Your task to perform on an android device: Search for the new Air Jordan 13 on Nike.com Image 0: 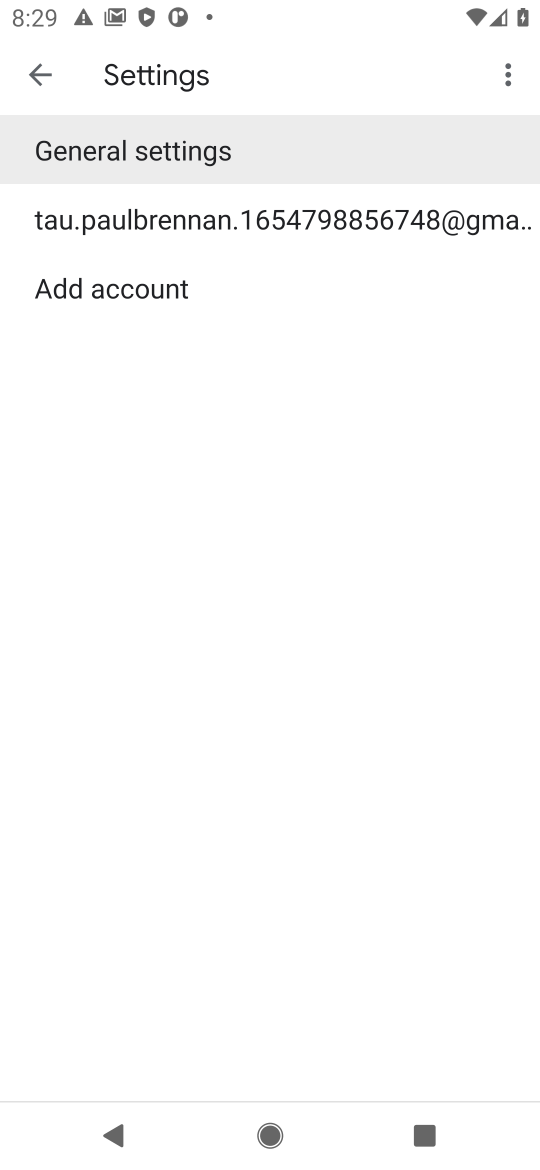
Step 0: press home button
Your task to perform on an android device: Search for the new Air Jordan 13 on Nike.com Image 1: 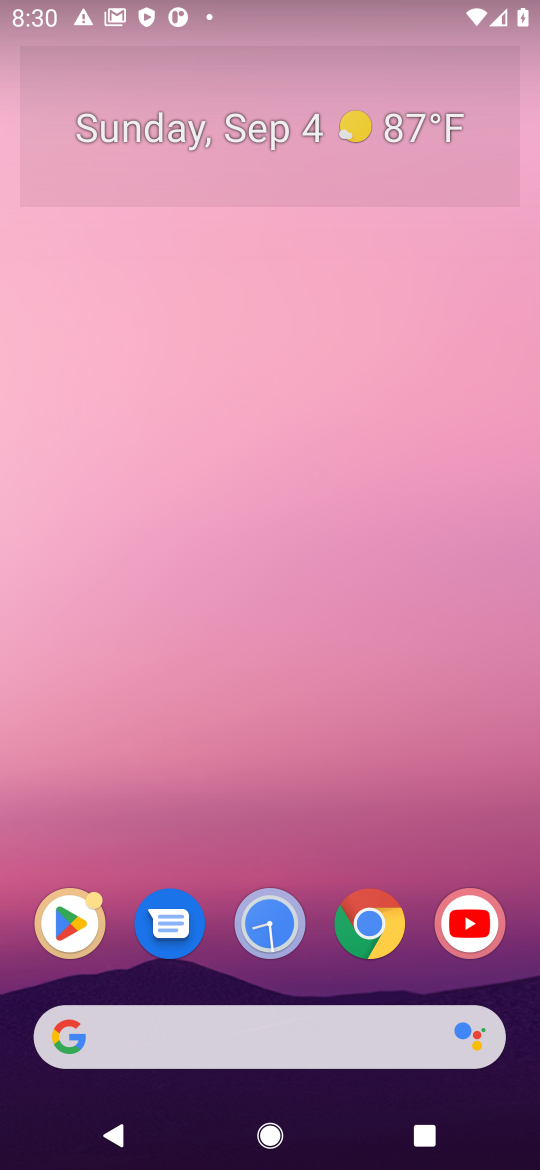
Step 1: click (402, 1046)
Your task to perform on an android device: Search for the new Air Jordan 13 on Nike.com Image 2: 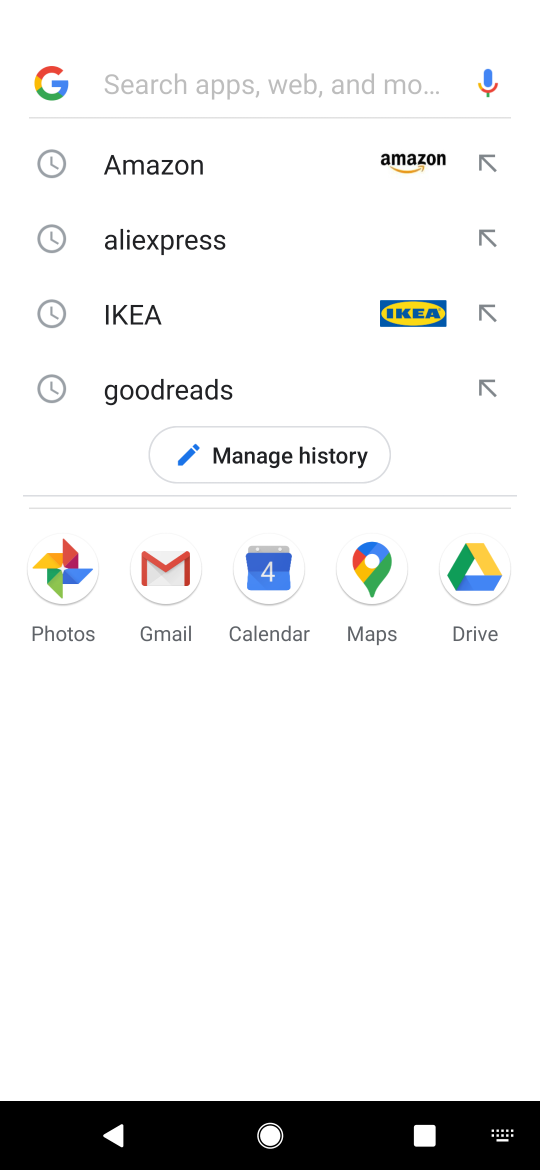
Step 2: press enter
Your task to perform on an android device: Search for the new Air Jordan 13 on Nike.com Image 3: 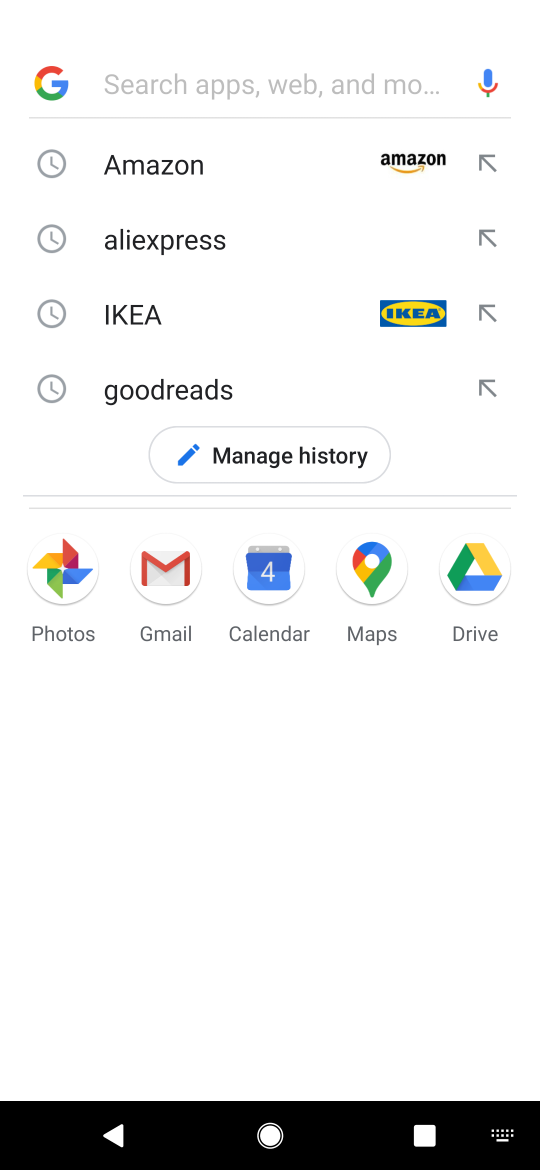
Step 3: type "nike.com"
Your task to perform on an android device: Search for the new Air Jordan 13 on Nike.com Image 4: 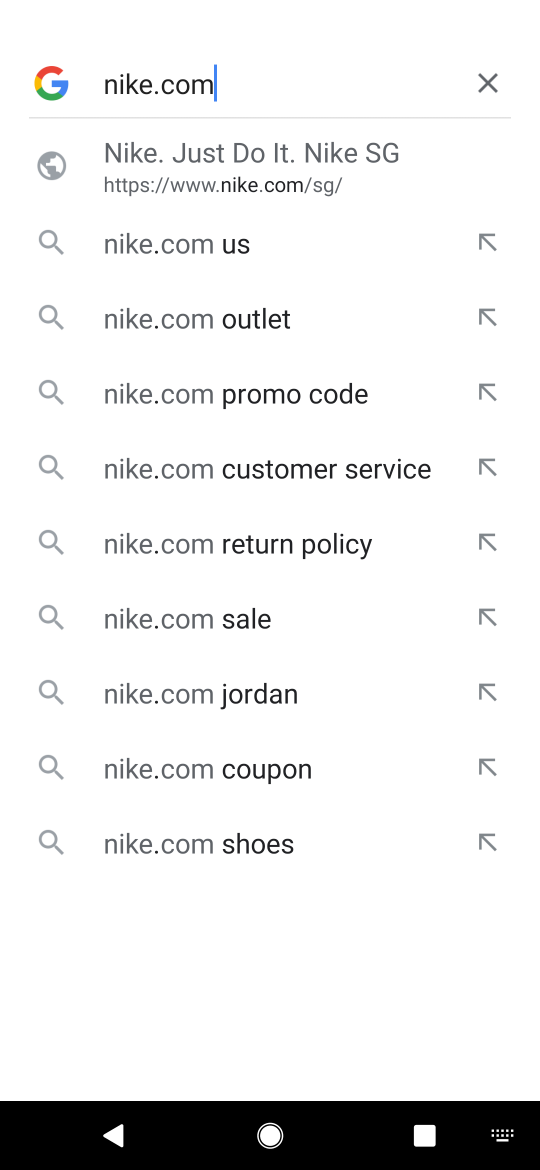
Step 4: click (264, 161)
Your task to perform on an android device: Search for the new Air Jordan 13 on Nike.com Image 5: 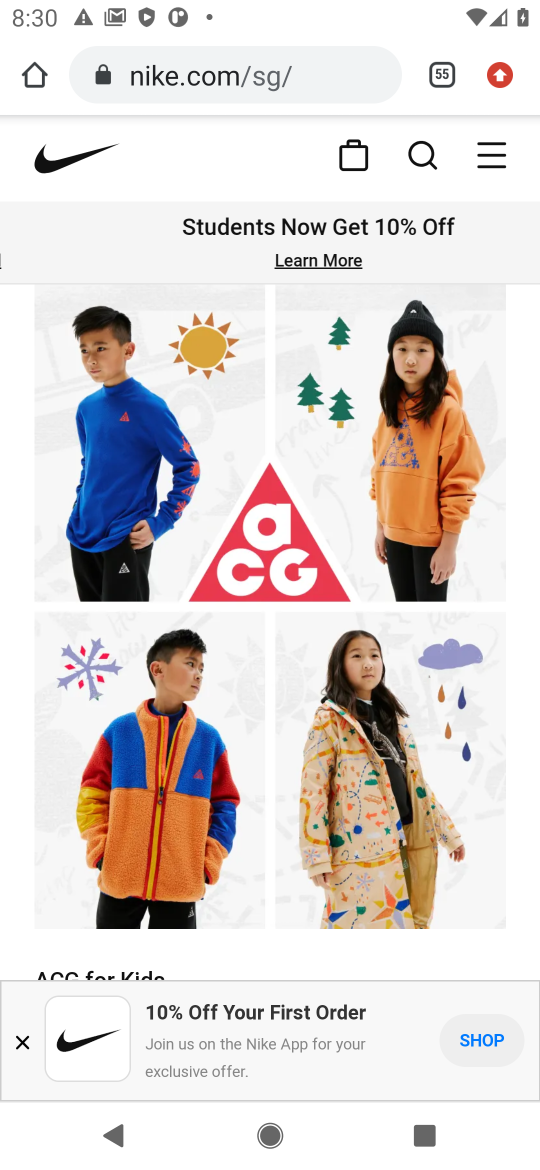
Step 5: click (415, 145)
Your task to perform on an android device: Search for the new Air Jordan 13 on Nike.com Image 6: 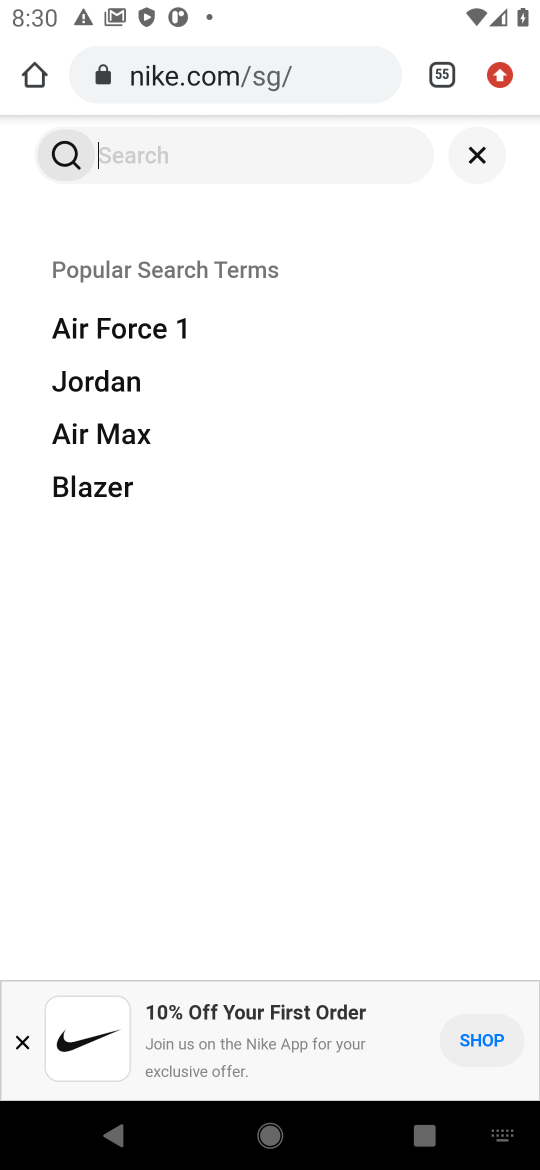
Step 6: press enter
Your task to perform on an android device: Search for the new Air Jordan 13 on Nike.com Image 7: 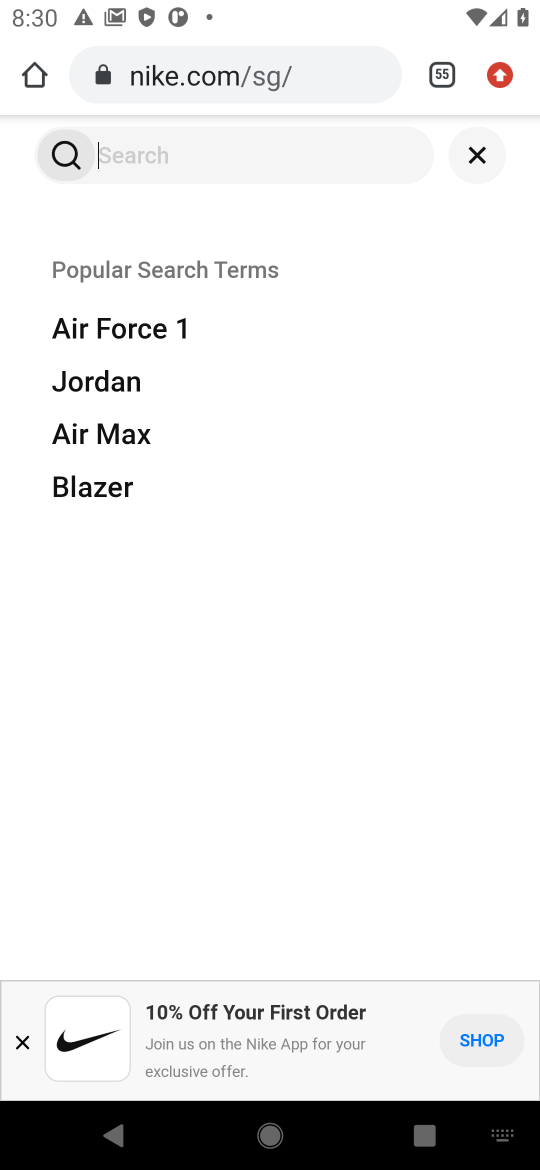
Step 7: type "air jordan 13"
Your task to perform on an android device: Search for the new Air Jordan 13 on Nike.com Image 8: 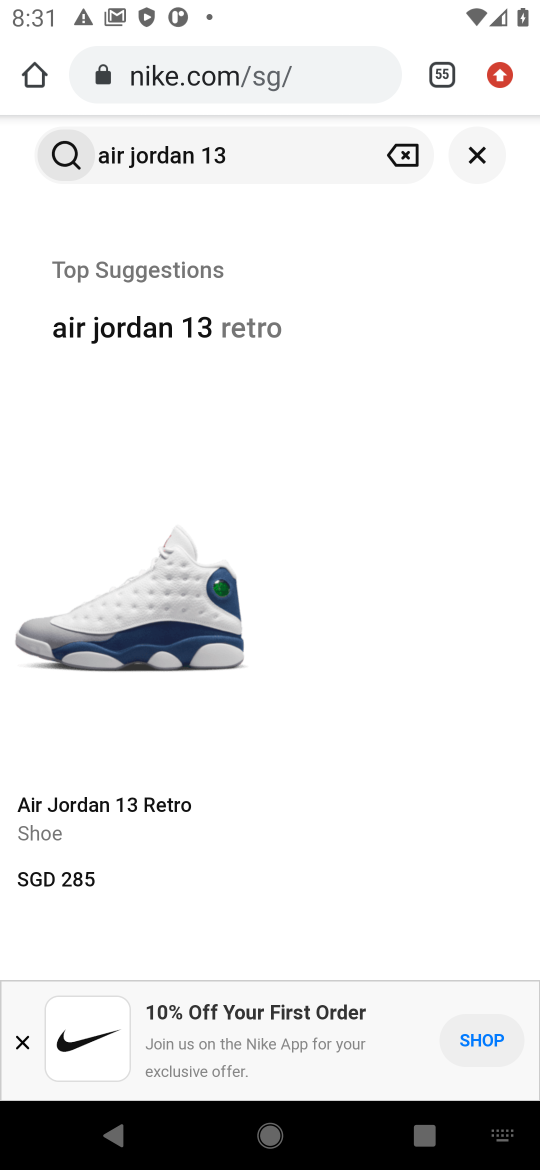
Step 8: task complete